Your task to perform on an android device: Show me popular games on the Play Store Image 0: 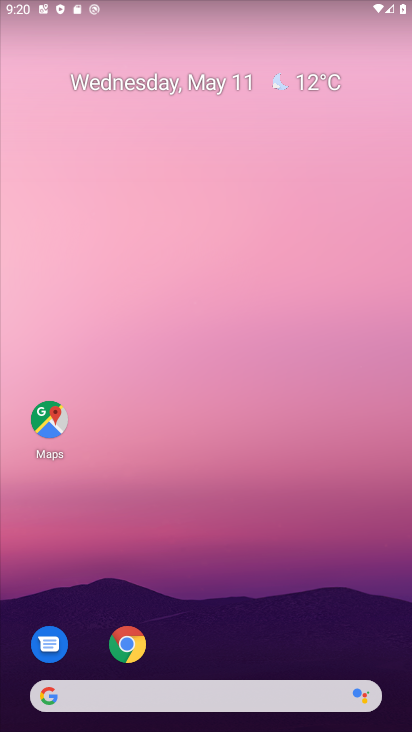
Step 0: drag from (170, 649) to (120, 321)
Your task to perform on an android device: Show me popular games on the Play Store Image 1: 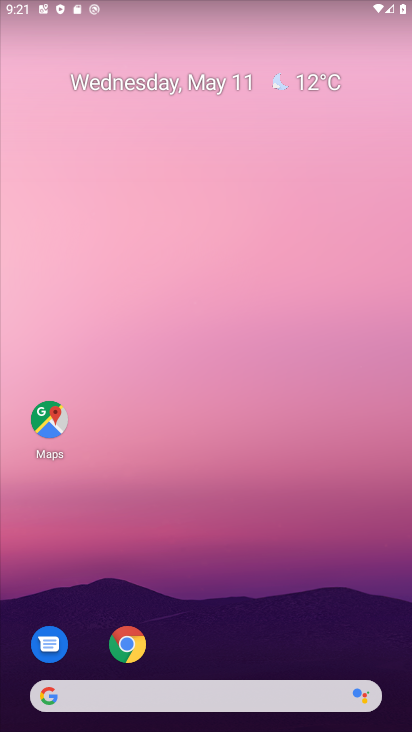
Step 1: drag from (203, 655) to (44, 47)
Your task to perform on an android device: Show me popular games on the Play Store Image 2: 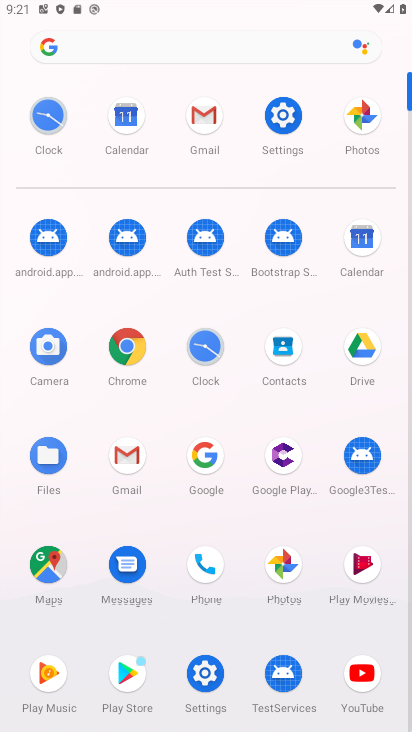
Step 2: click (133, 670)
Your task to perform on an android device: Show me popular games on the Play Store Image 3: 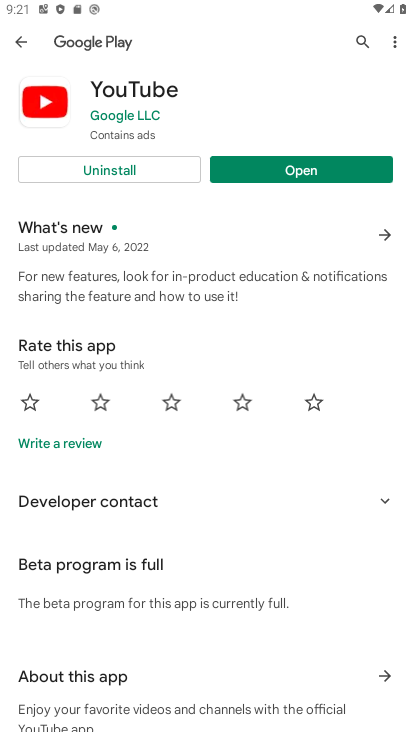
Step 3: press back button
Your task to perform on an android device: Show me popular games on the Play Store Image 4: 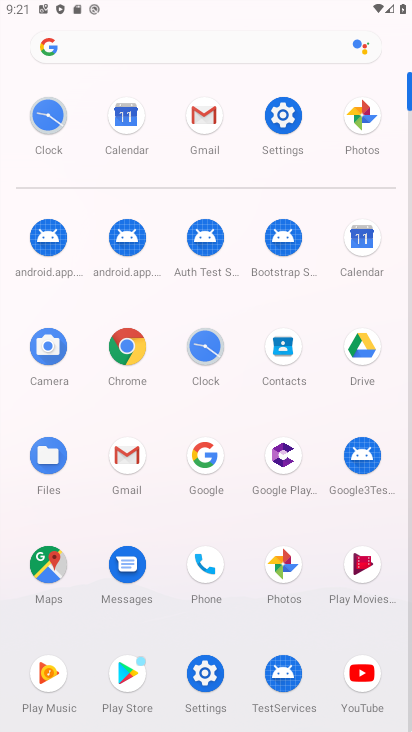
Step 4: click (121, 686)
Your task to perform on an android device: Show me popular games on the Play Store Image 5: 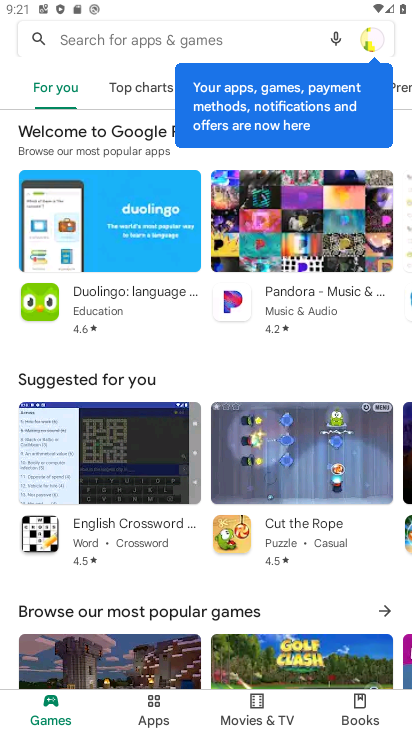
Step 5: click (144, 86)
Your task to perform on an android device: Show me popular games on the Play Store Image 6: 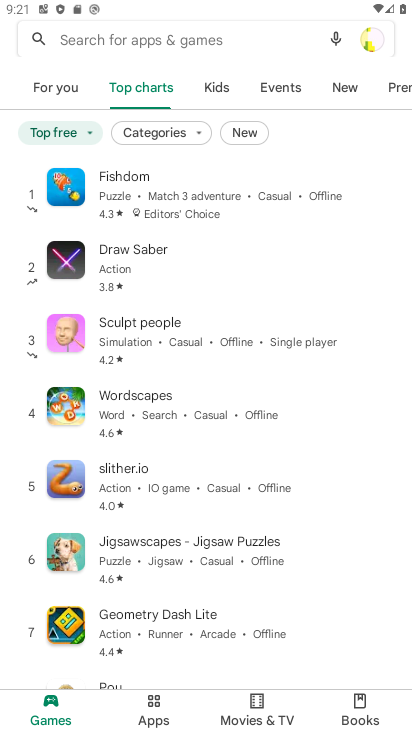
Step 6: click (88, 135)
Your task to perform on an android device: Show me popular games on the Play Store Image 7: 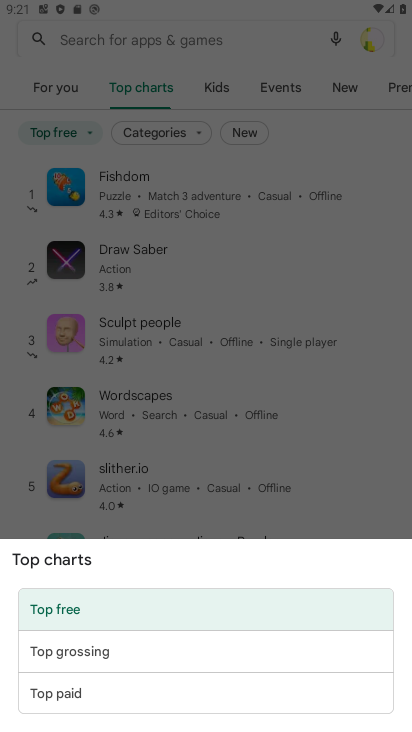
Step 7: click (45, 662)
Your task to perform on an android device: Show me popular games on the Play Store Image 8: 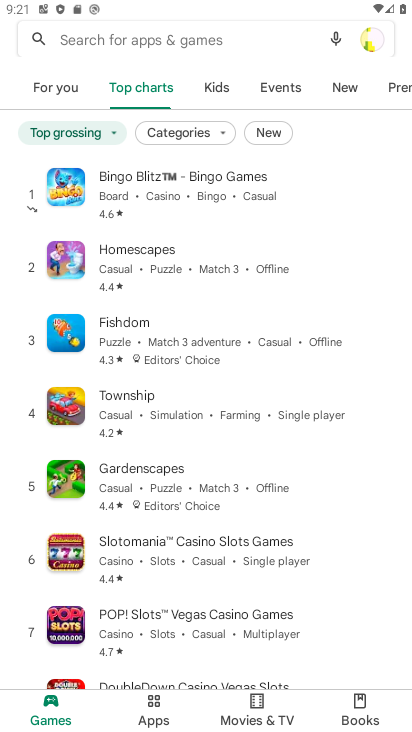
Step 8: click (107, 134)
Your task to perform on an android device: Show me popular games on the Play Store Image 9: 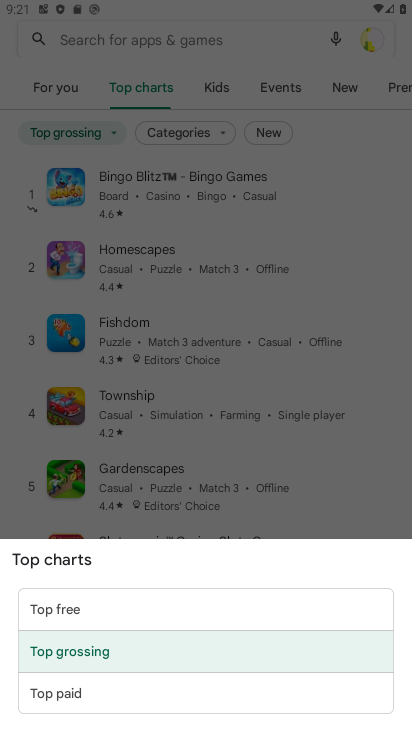
Step 9: click (60, 699)
Your task to perform on an android device: Show me popular games on the Play Store Image 10: 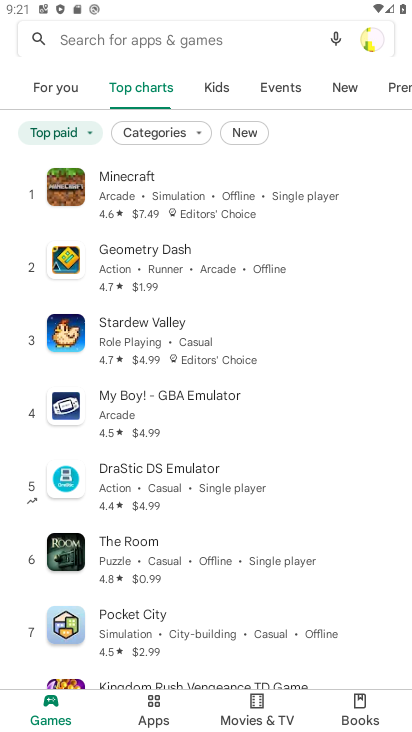
Step 10: click (184, 131)
Your task to perform on an android device: Show me popular games on the Play Store Image 11: 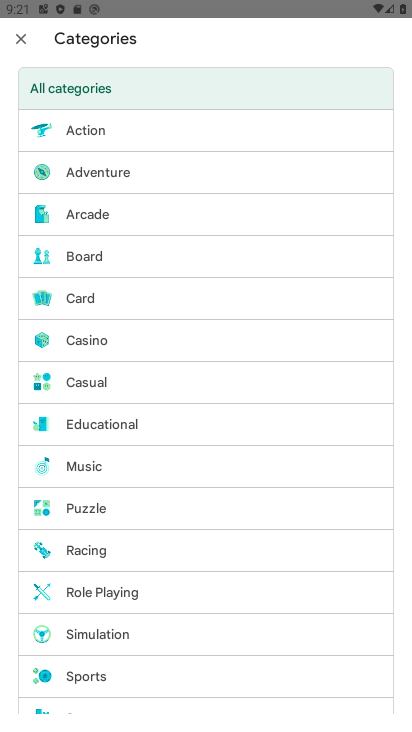
Step 11: task complete